Your task to perform on an android device: open app "Google Chrome" Image 0: 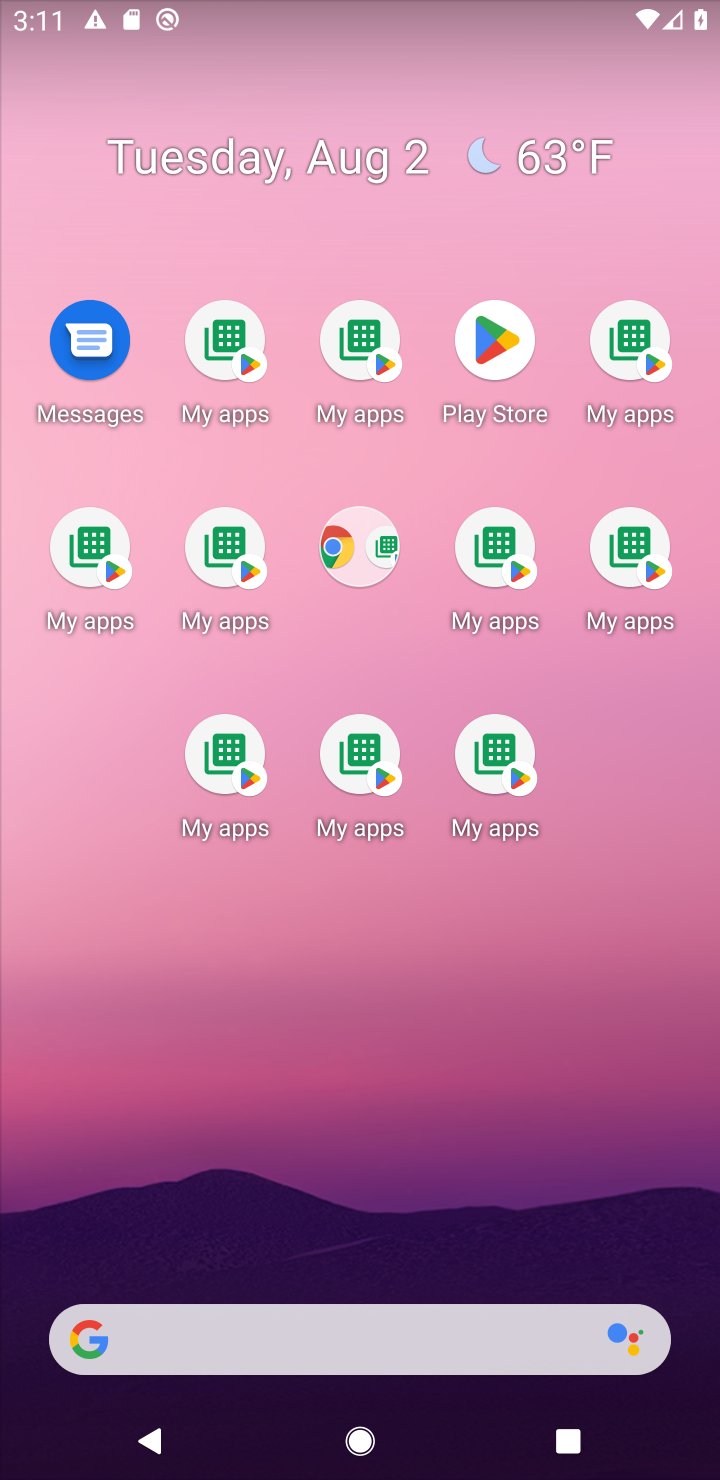
Step 0: press back button
Your task to perform on an android device: open app "Google Chrome" Image 1: 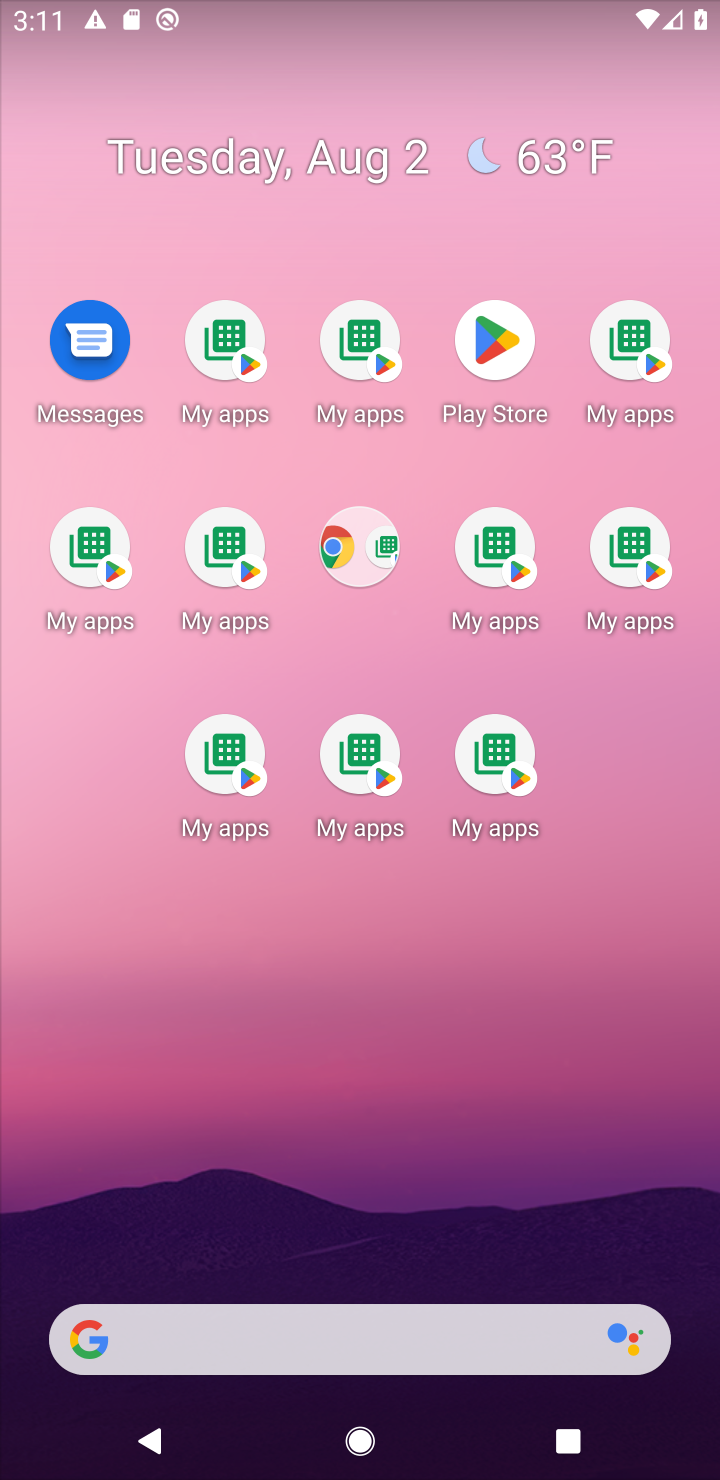
Step 1: drag from (268, 727) to (334, 372)
Your task to perform on an android device: open app "Google Chrome" Image 2: 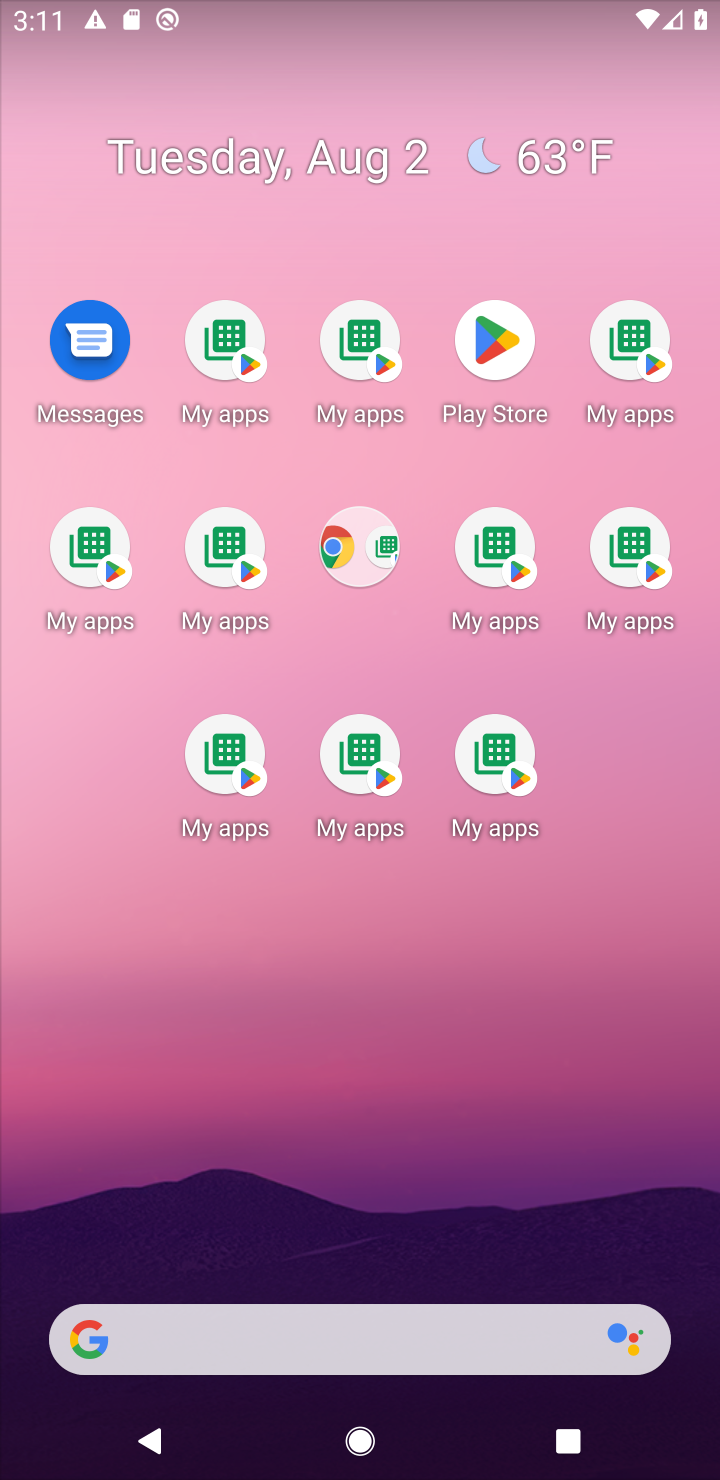
Step 2: click (499, 335)
Your task to perform on an android device: open app "Google Chrome" Image 3: 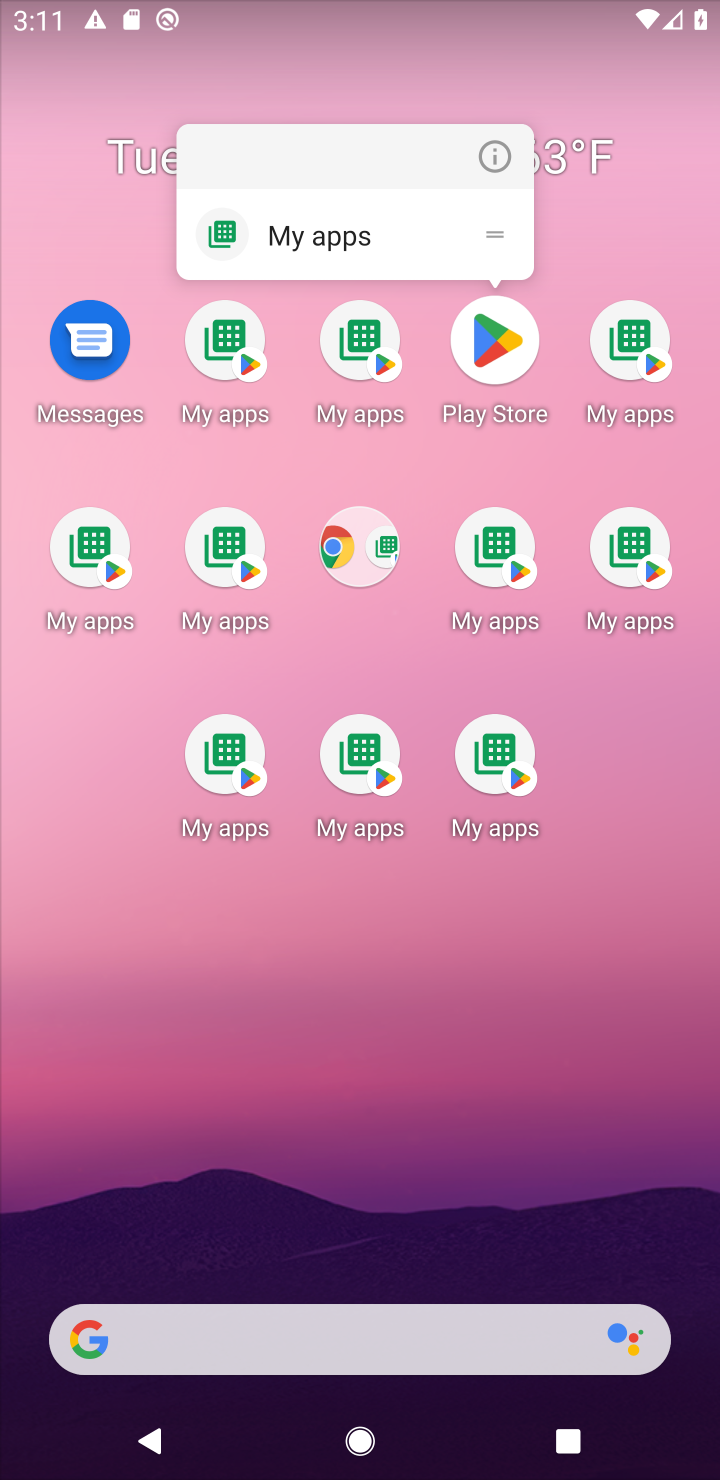
Step 3: click (482, 356)
Your task to perform on an android device: open app "Google Chrome" Image 4: 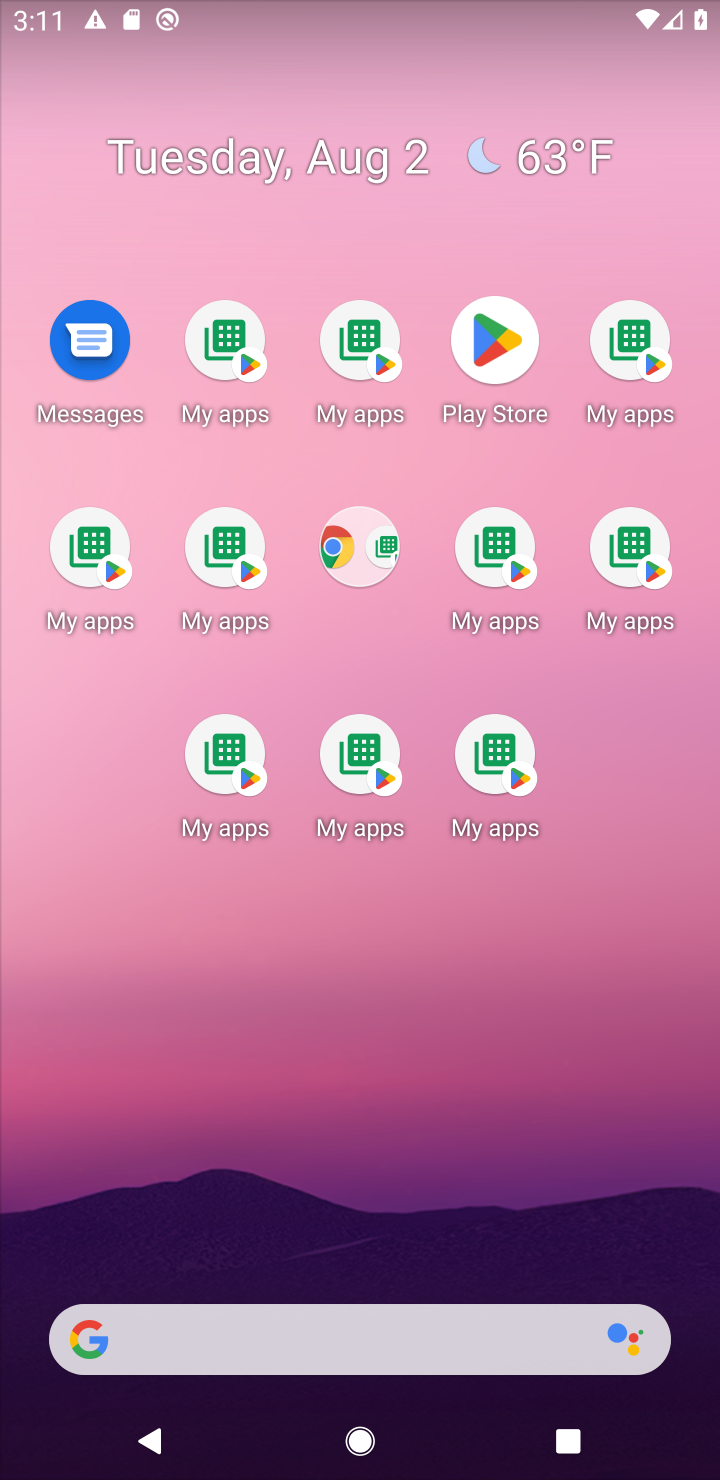
Step 4: click (331, 226)
Your task to perform on an android device: open app "Google Chrome" Image 5: 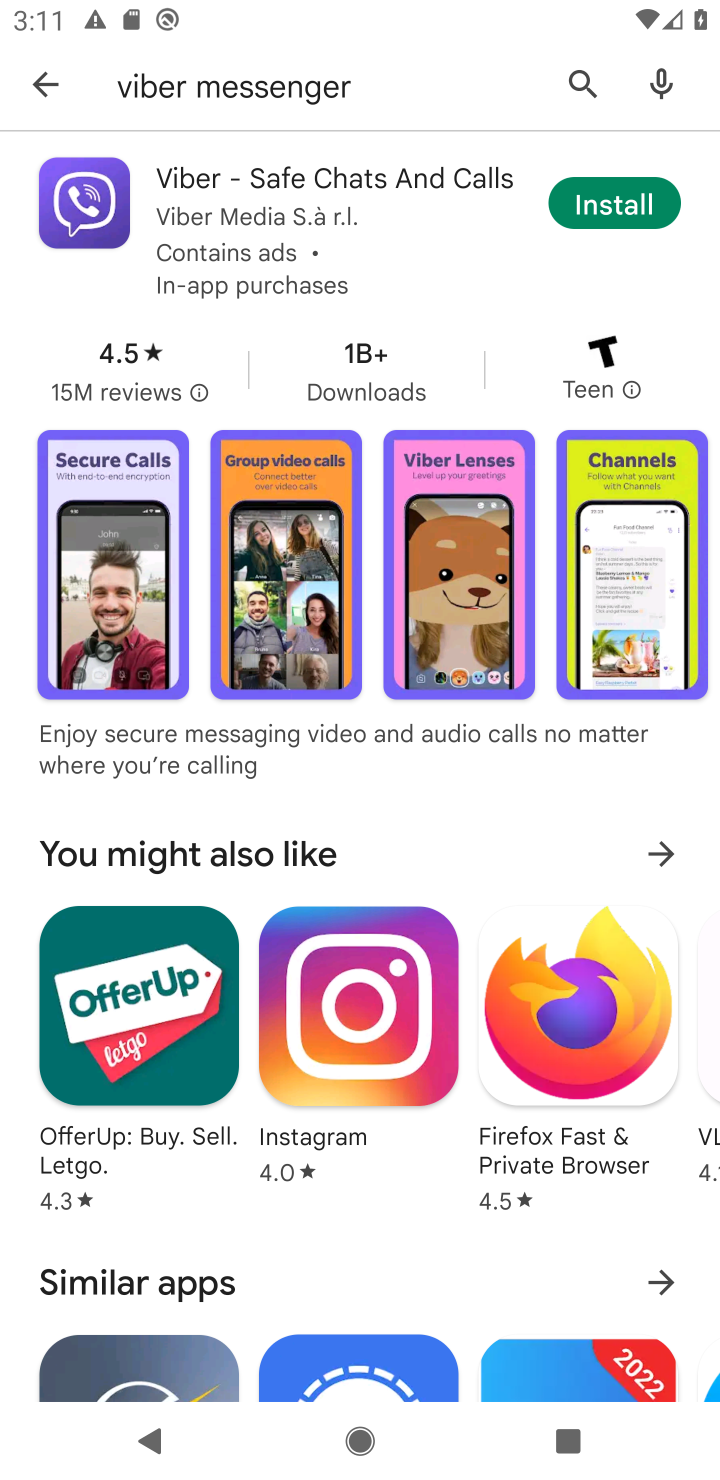
Step 5: click (359, 228)
Your task to perform on an android device: open app "Google Chrome" Image 6: 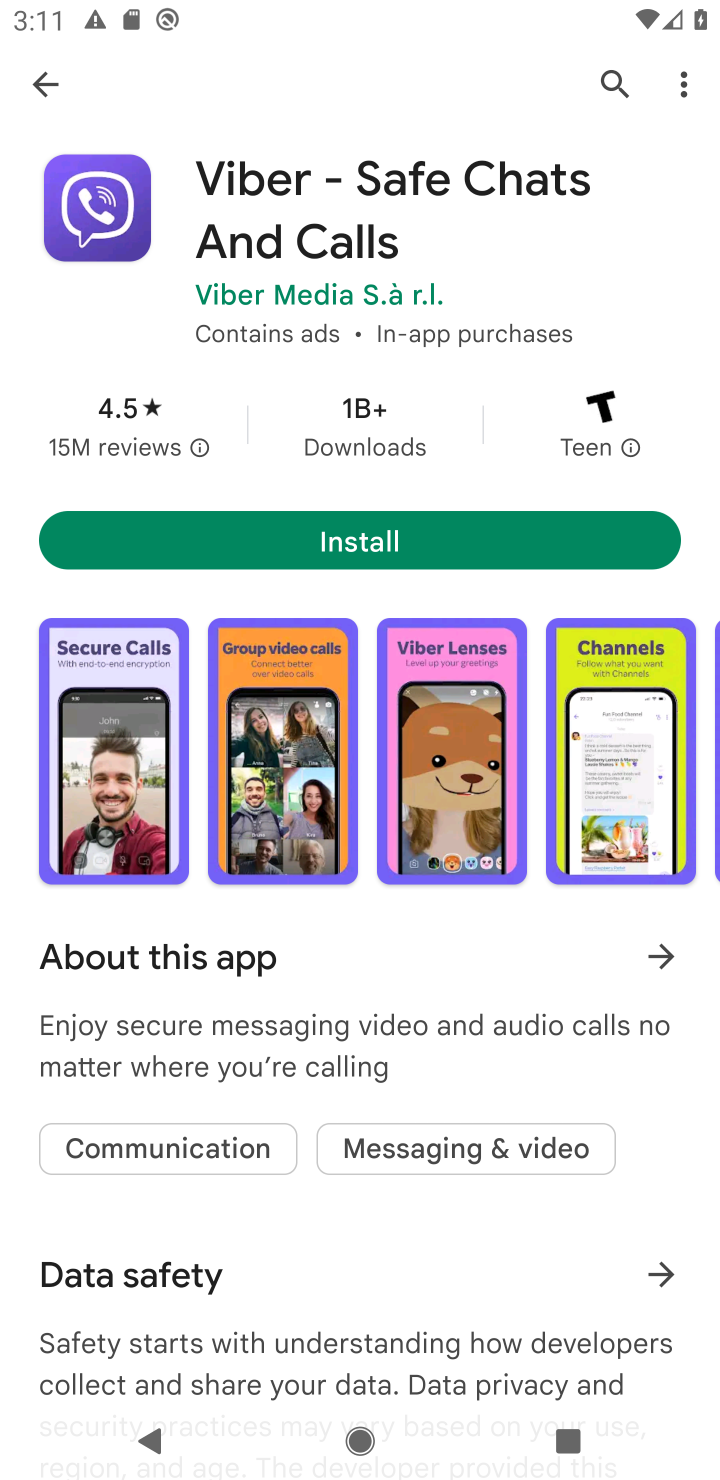
Step 6: click (610, 67)
Your task to perform on an android device: open app "Google Chrome" Image 7: 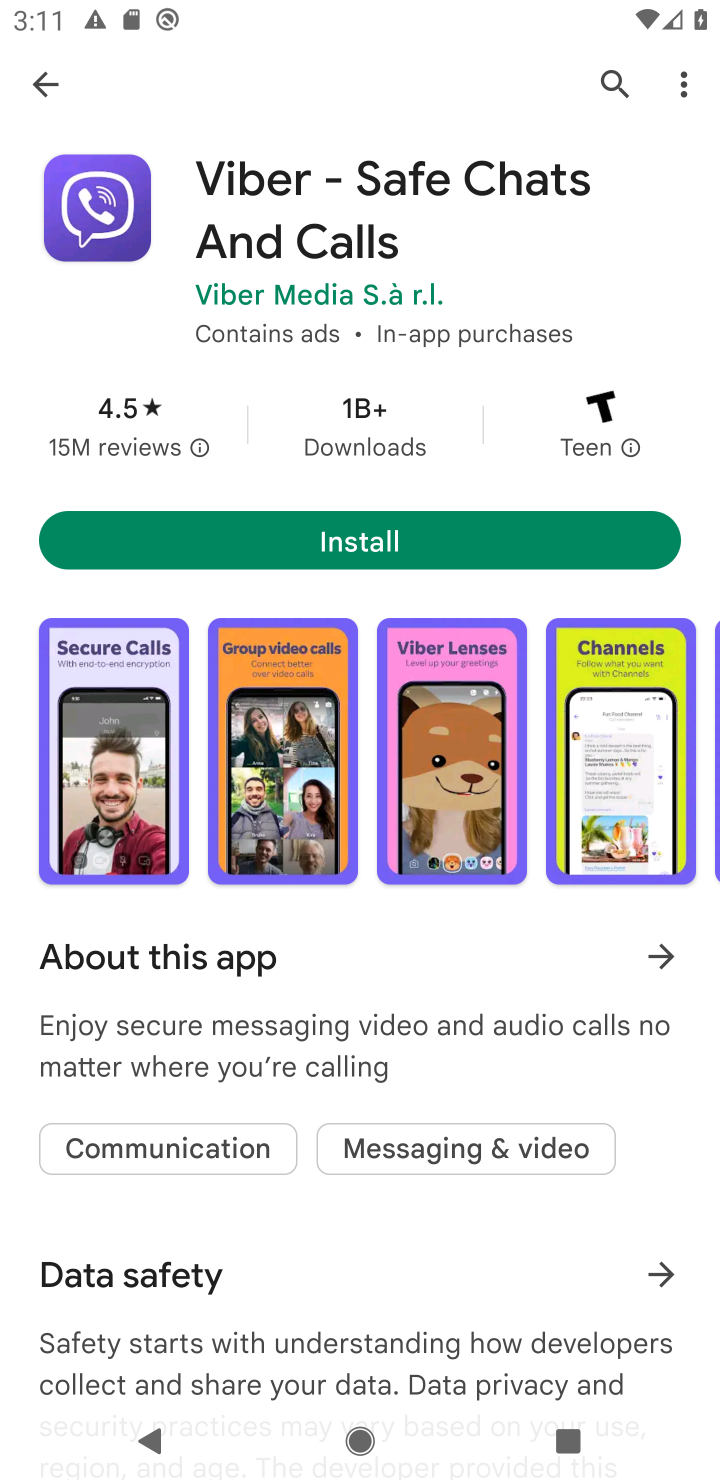
Step 7: click (596, 77)
Your task to perform on an android device: open app "Google Chrome" Image 8: 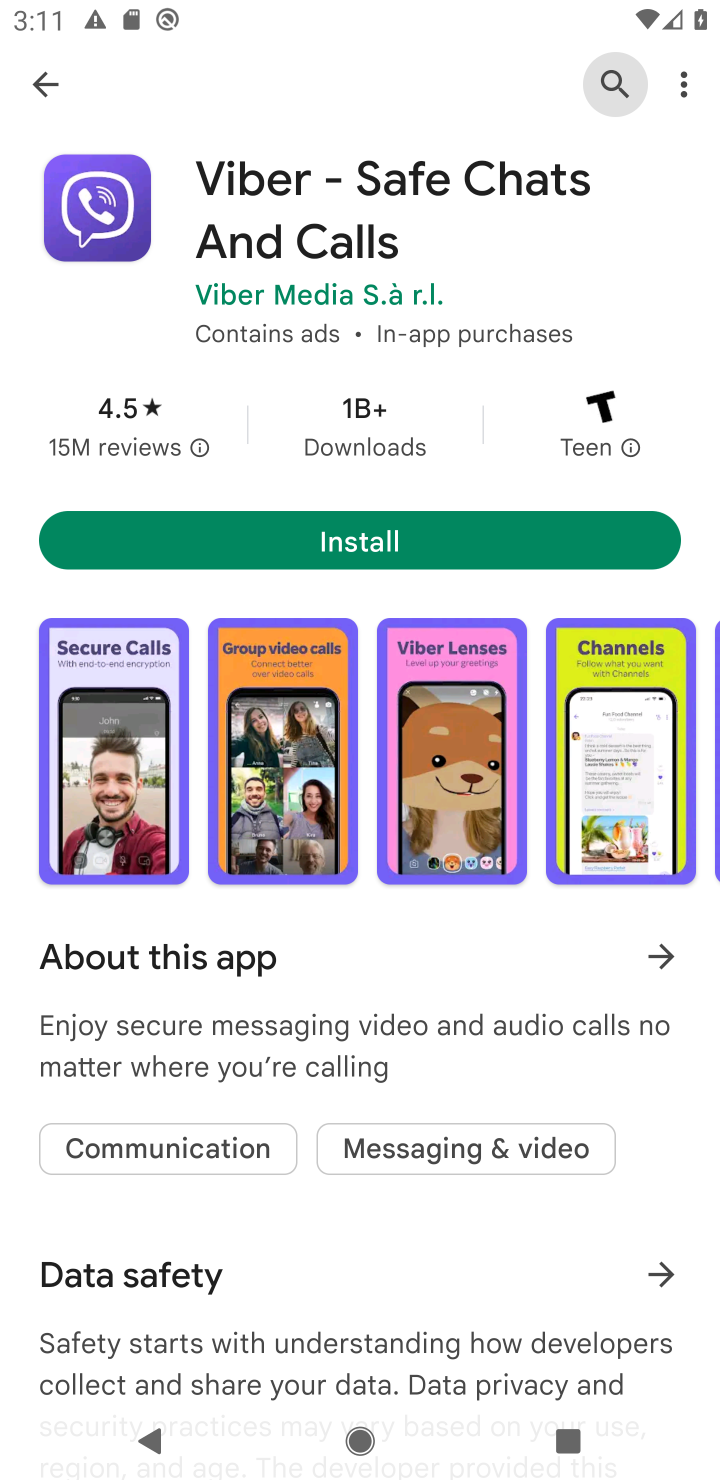
Step 8: click (607, 77)
Your task to perform on an android device: open app "Google Chrome" Image 9: 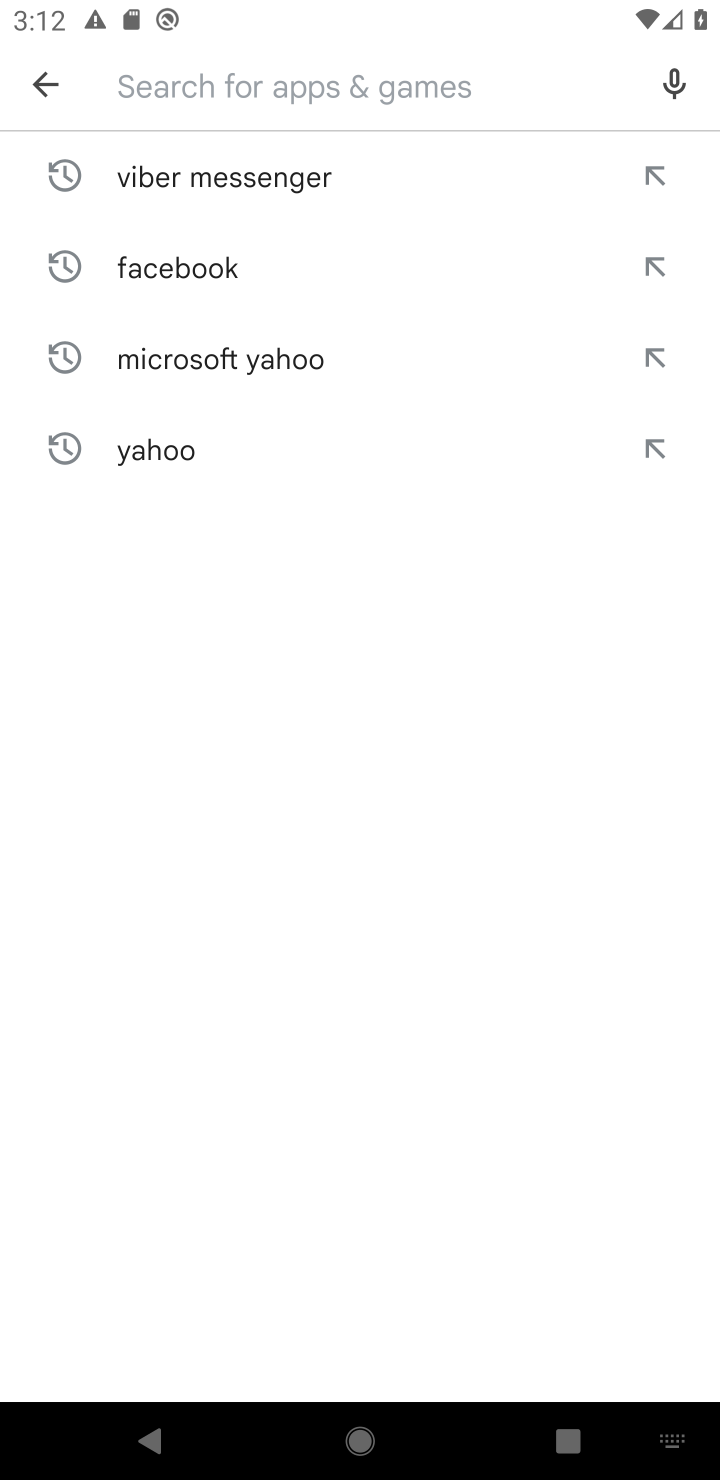
Step 9: type "Google chrome"
Your task to perform on an android device: open app "Google Chrome" Image 10: 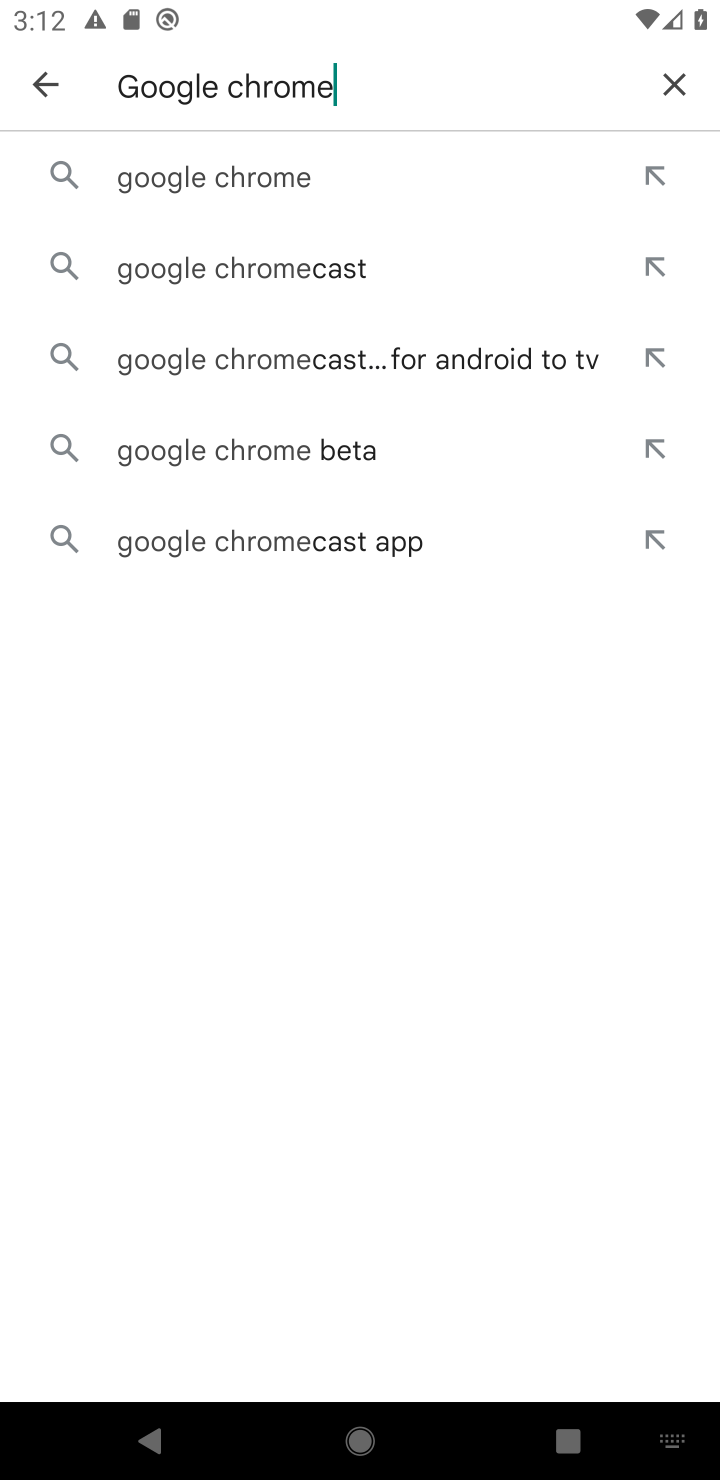
Step 10: click (222, 161)
Your task to perform on an android device: open app "Google Chrome" Image 11: 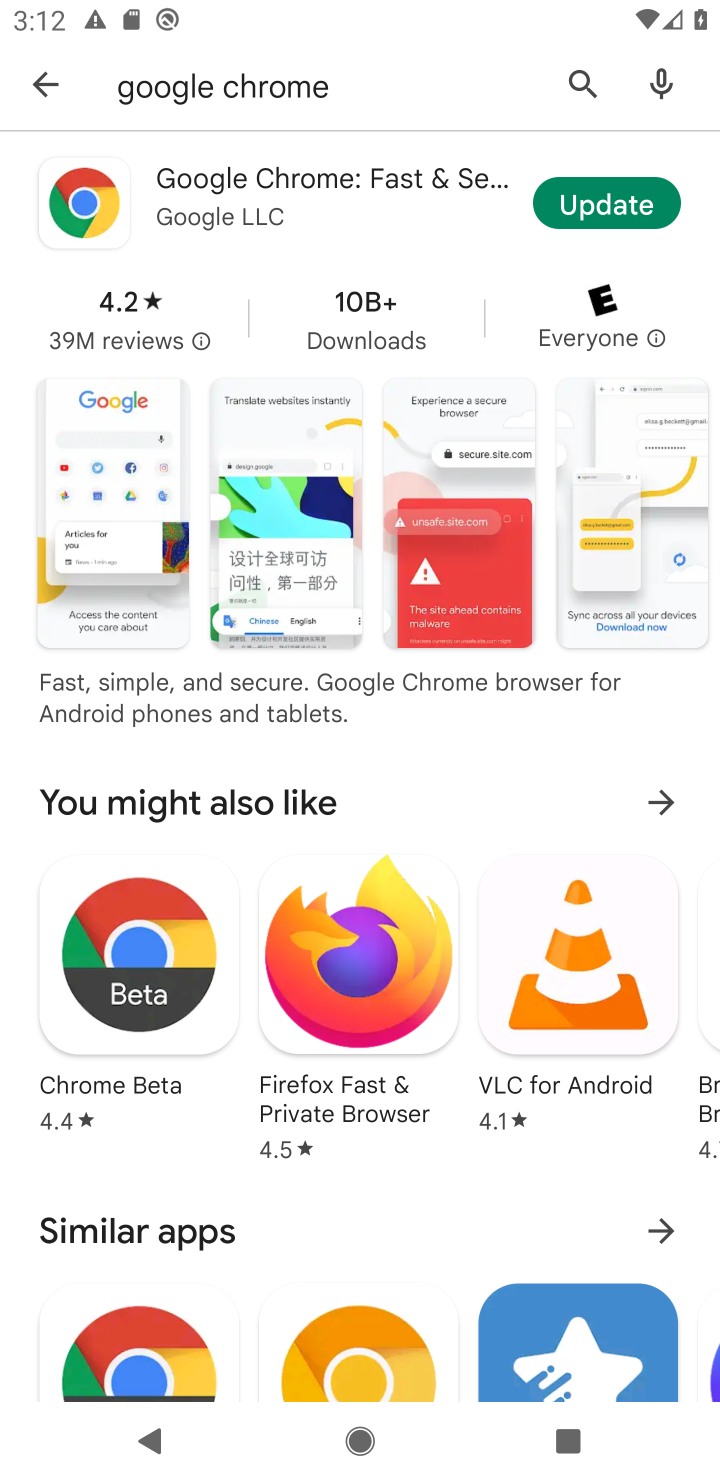
Step 11: click (612, 204)
Your task to perform on an android device: open app "Google Chrome" Image 12: 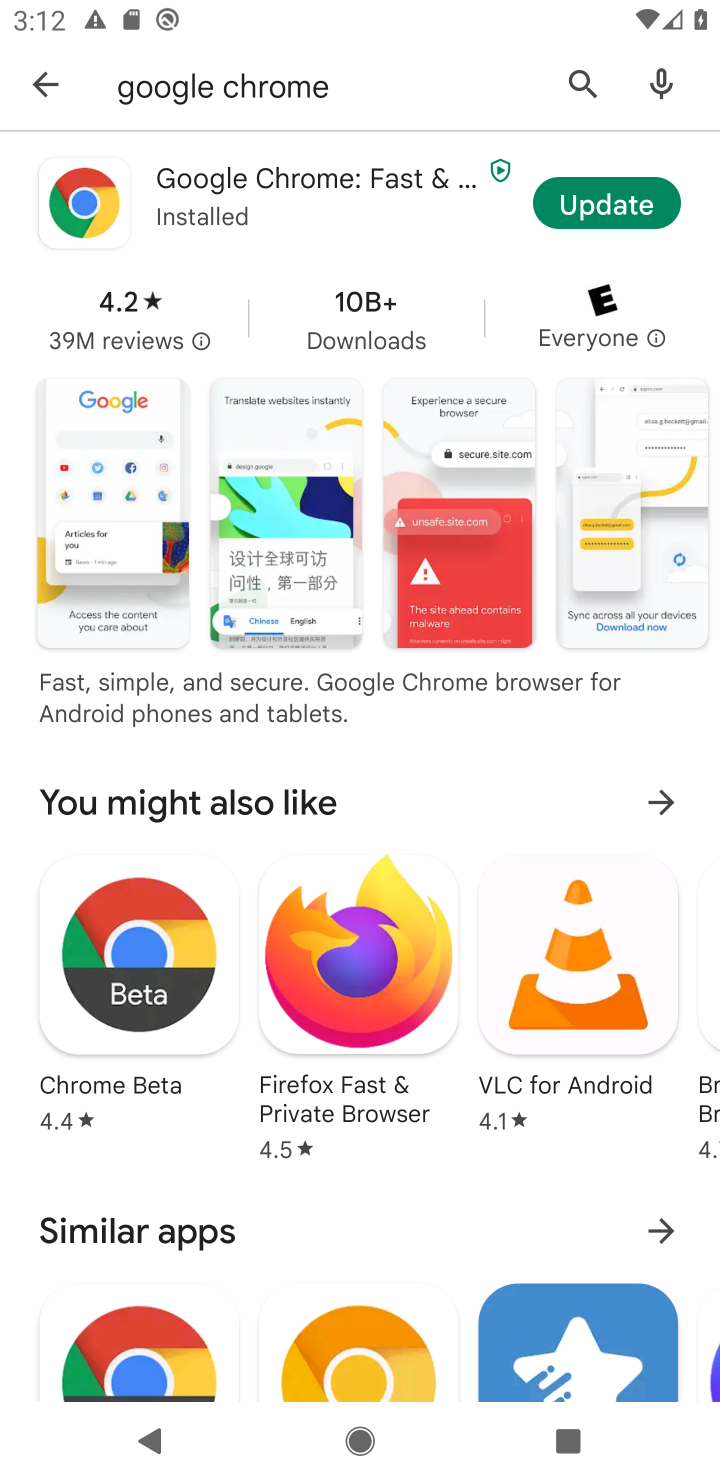
Step 12: click (565, 205)
Your task to perform on an android device: open app "Google Chrome" Image 13: 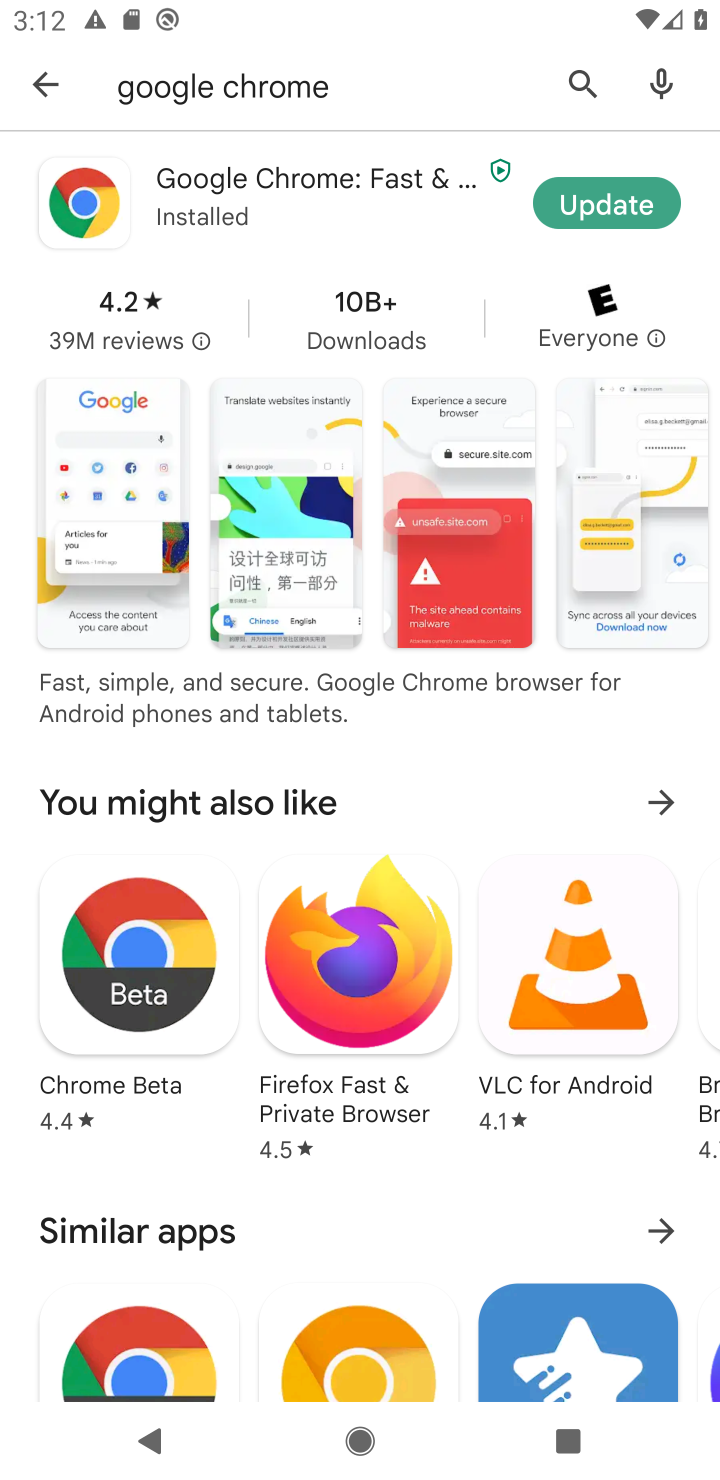
Step 13: click (593, 193)
Your task to perform on an android device: open app "Google Chrome" Image 14: 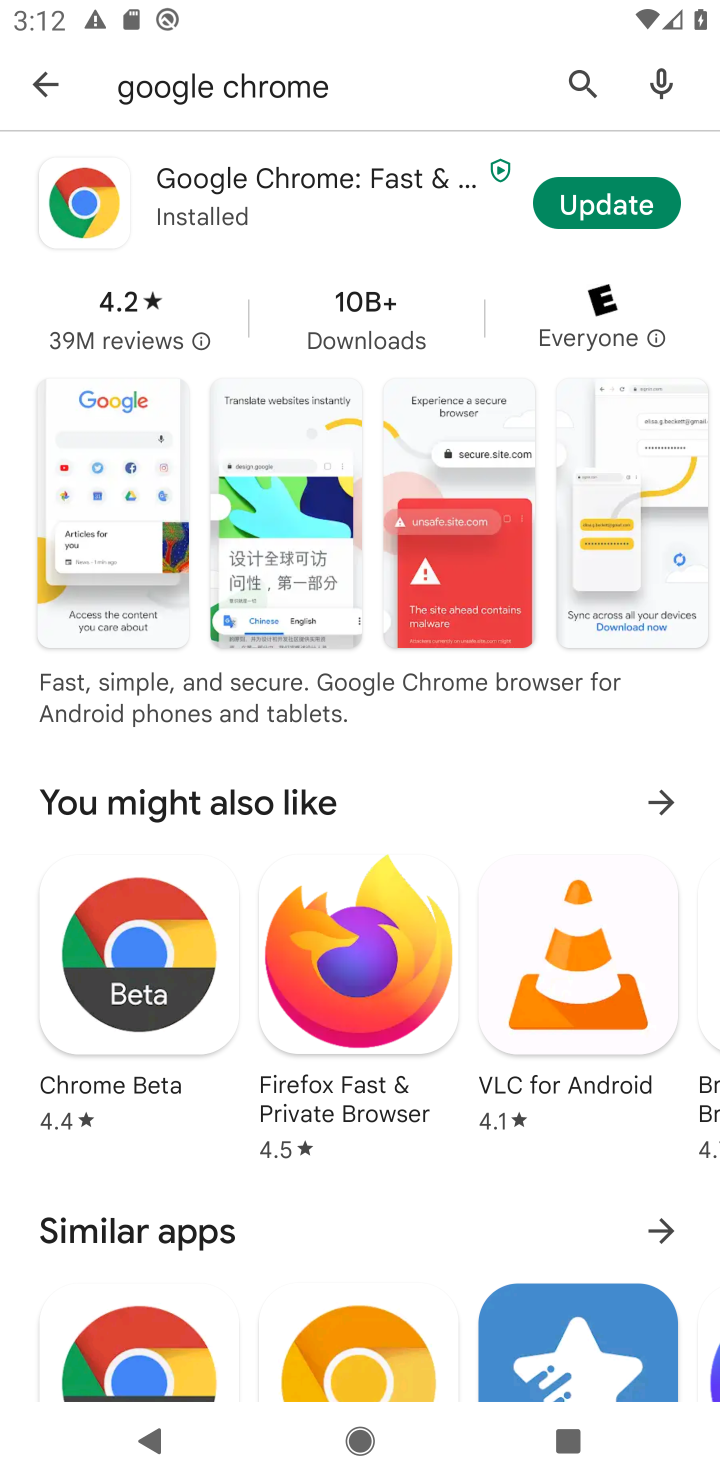
Step 14: click (632, 192)
Your task to perform on an android device: open app "Google Chrome" Image 15: 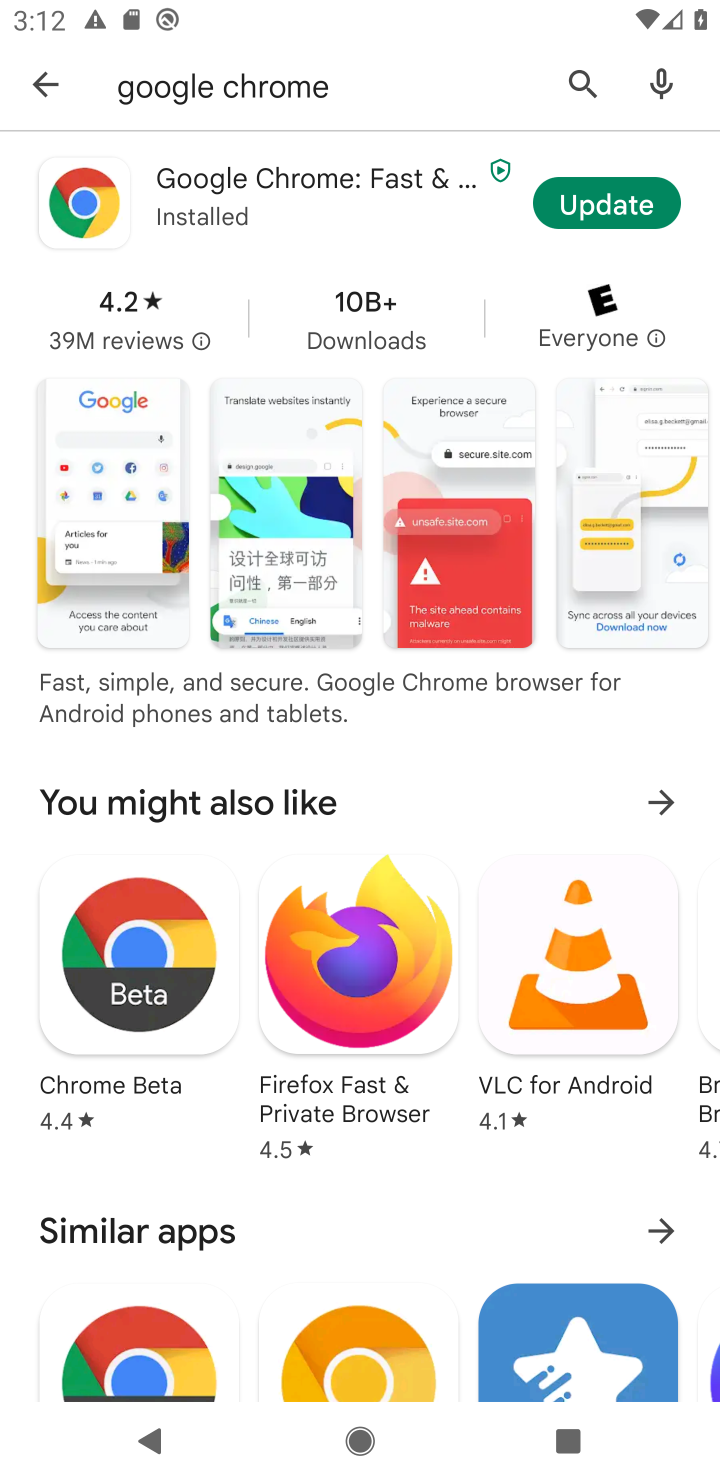
Step 15: click (630, 192)
Your task to perform on an android device: open app "Google Chrome" Image 16: 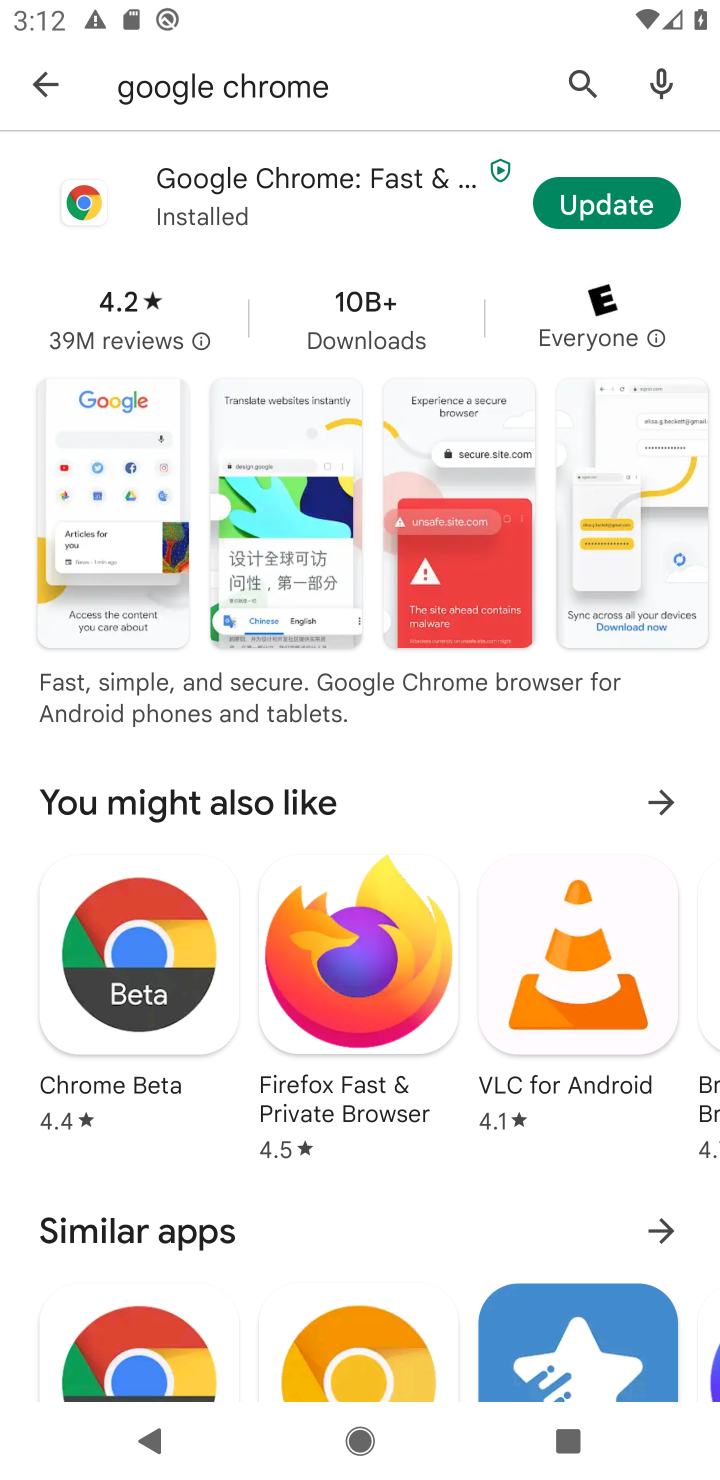
Step 16: click (630, 192)
Your task to perform on an android device: open app "Google Chrome" Image 17: 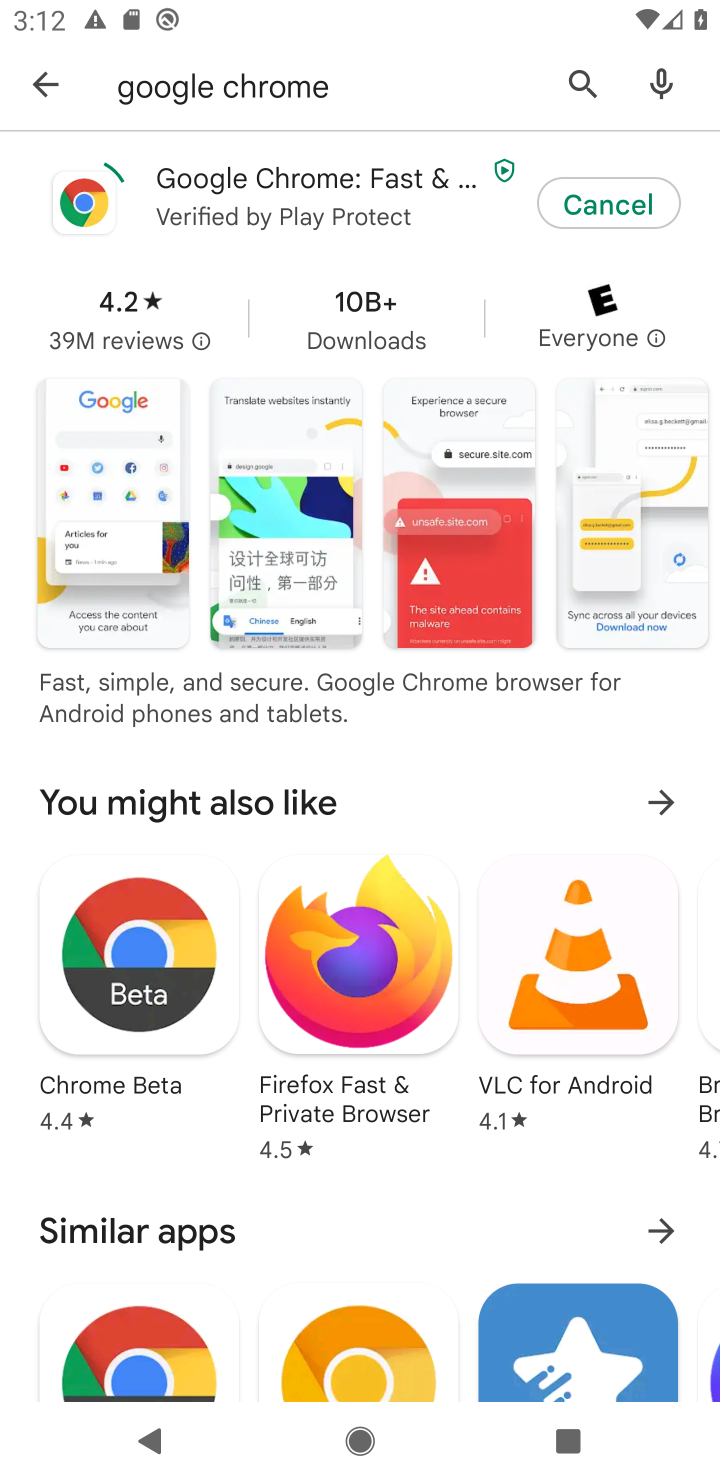
Step 17: click (608, 176)
Your task to perform on an android device: open app "Google Chrome" Image 18: 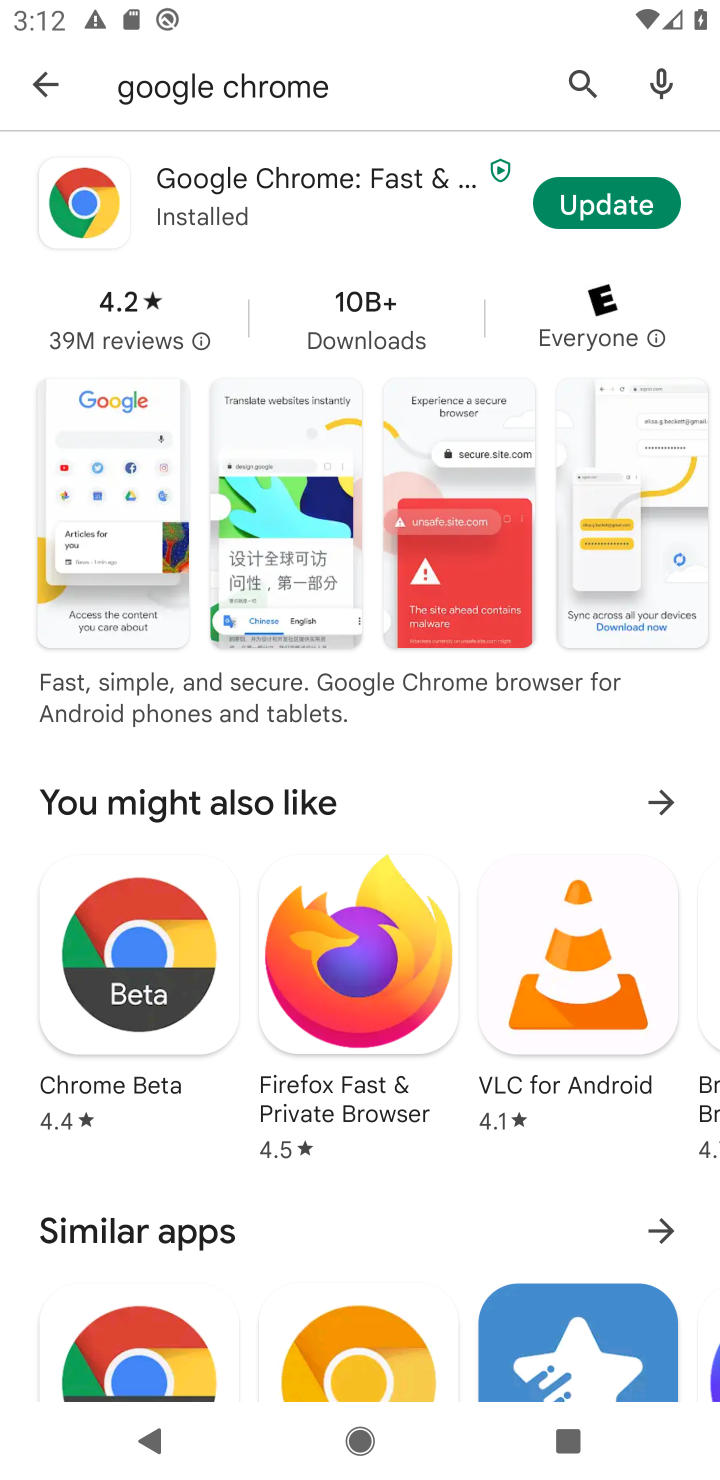
Step 18: click (625, 193)
Your task to perform on an android device: open app "Google Chrome" Image 19: 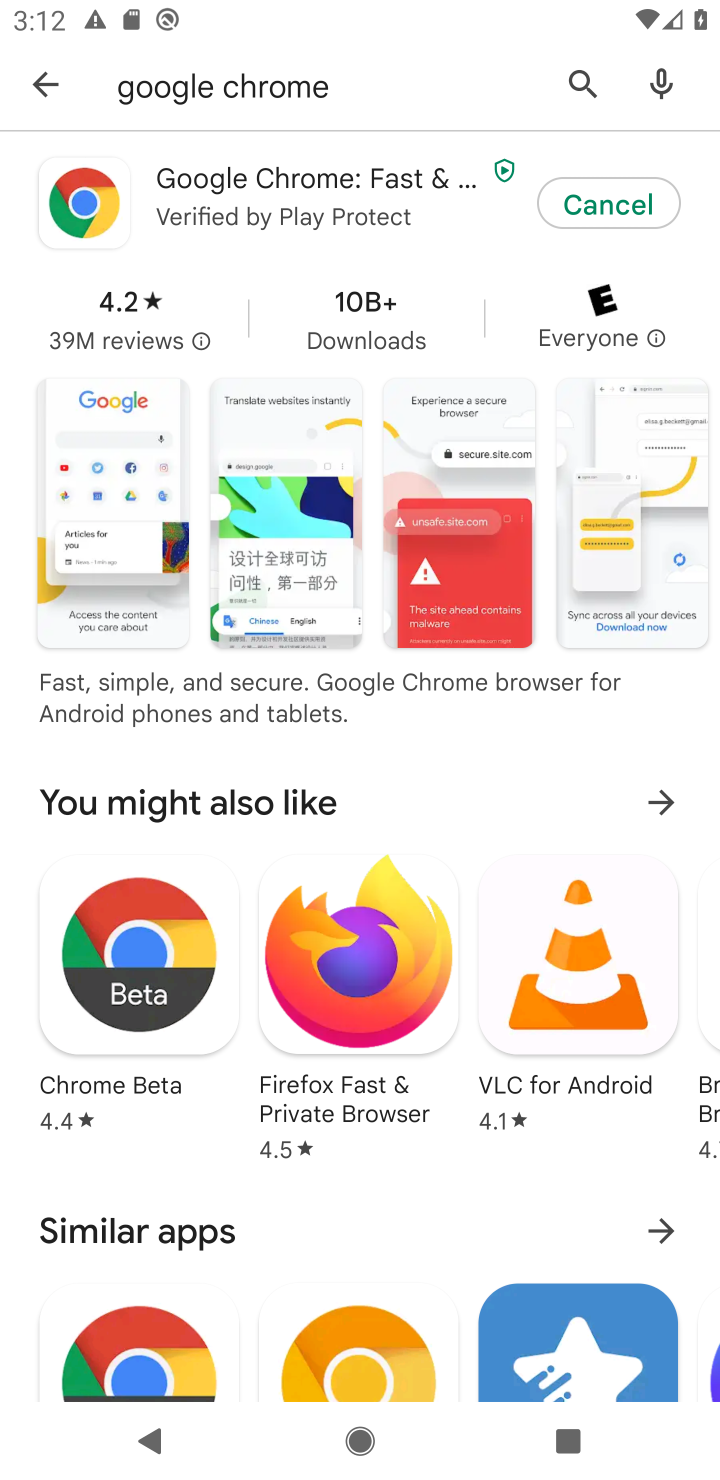
Step 19: click (626, 192)
Your task to perform on an android device: open app "Google Chrome" Image 20: 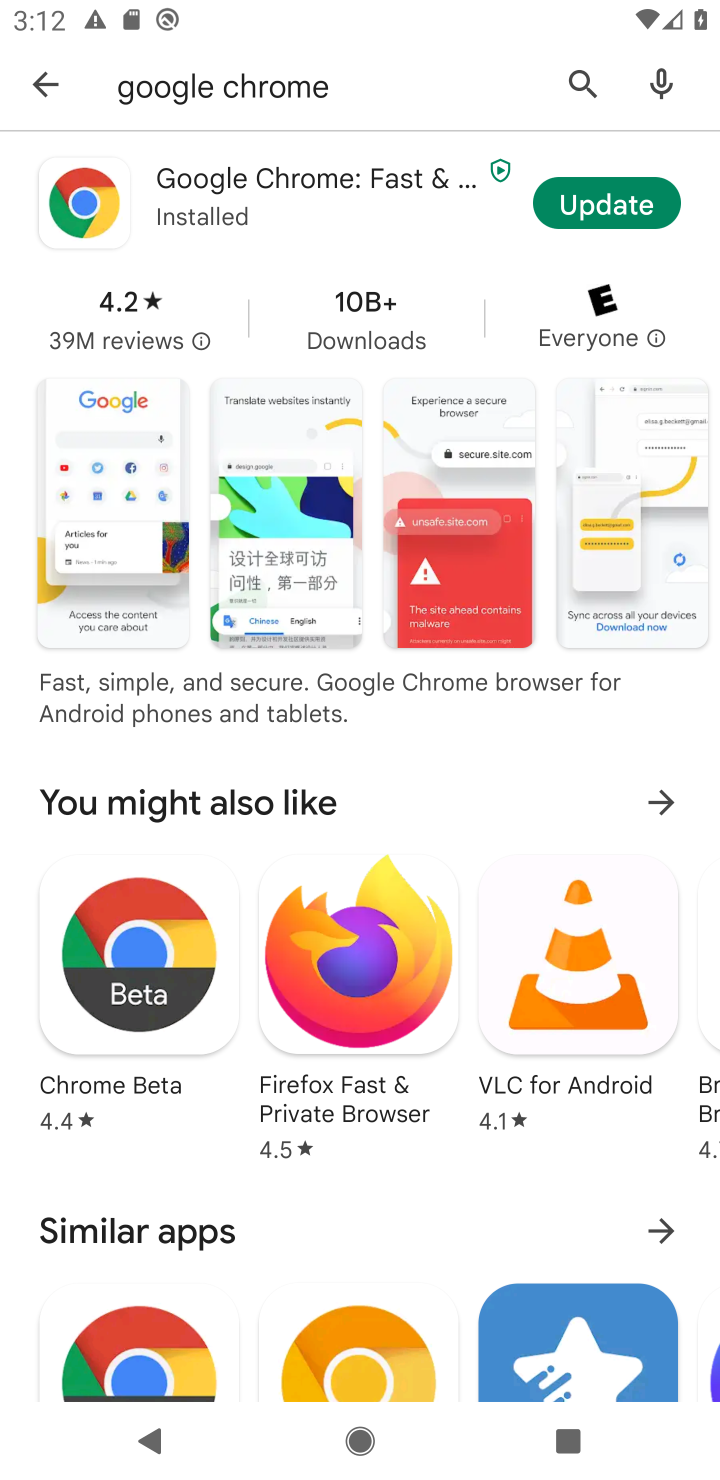
Step 20: click (619, 197)
Your task to perform on an android device: open app "Google Chrome" Image 21: 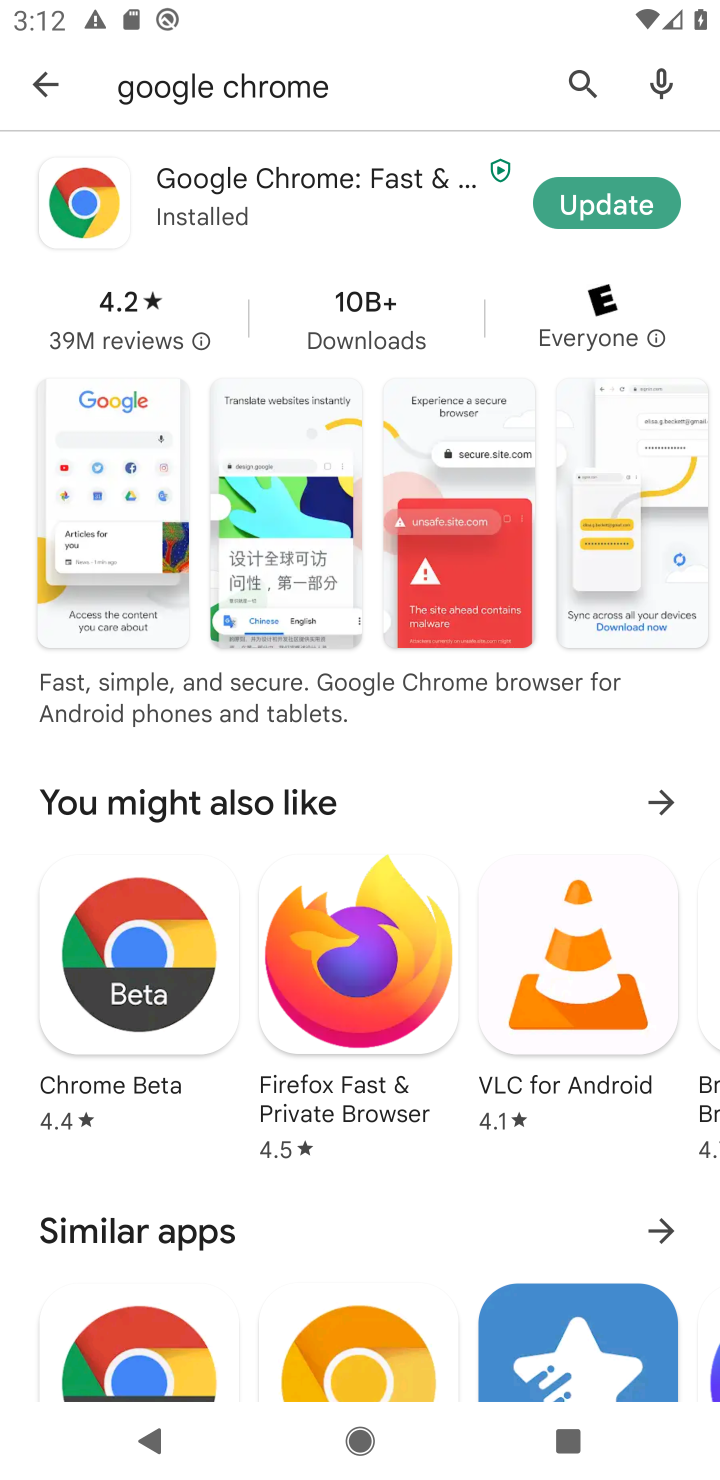
Step 21: task complete